Your task to perform on an android device: What's the weather going to be tomorrow? Image 0: 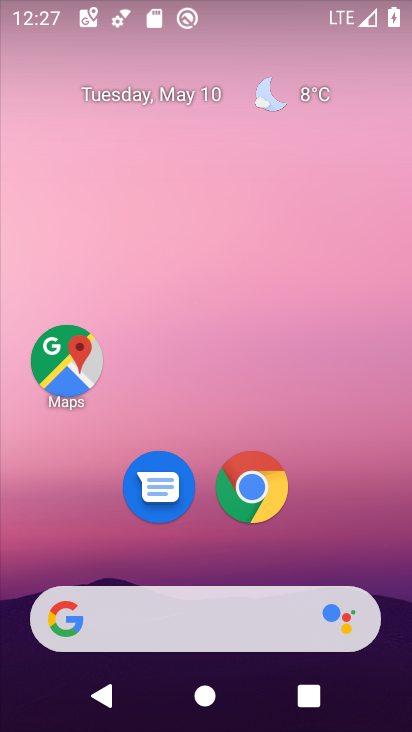
Step 0: press home button
Your task to perform on an android device: What's the weather going to be tomorrow? Image 1: 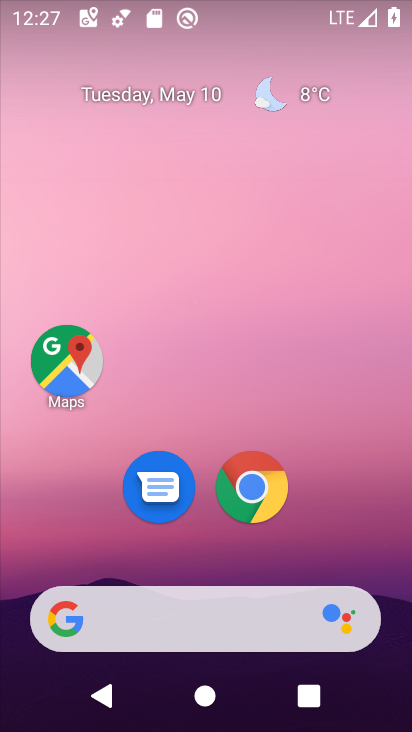
Step 1: click (322, 92)
Your task to perform on an android device: What's the weather going to be tomorrow? Image 2: 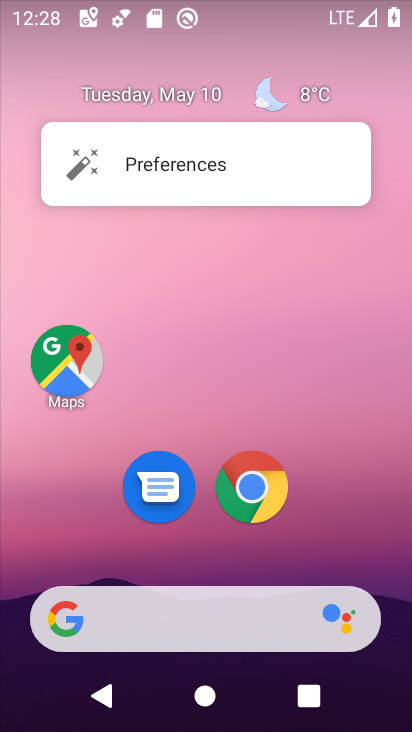
Step 2: click (308, 86)
Your task to perform on an android device: What's the weather going to be tomorrow? Image 3: 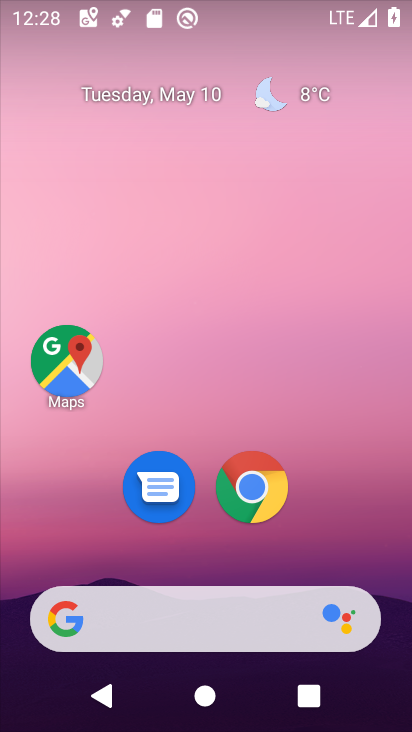
Step 3: click (315, 88)
Your task to perform on an android device: What's the weather going to be tomorrow? Image 4: 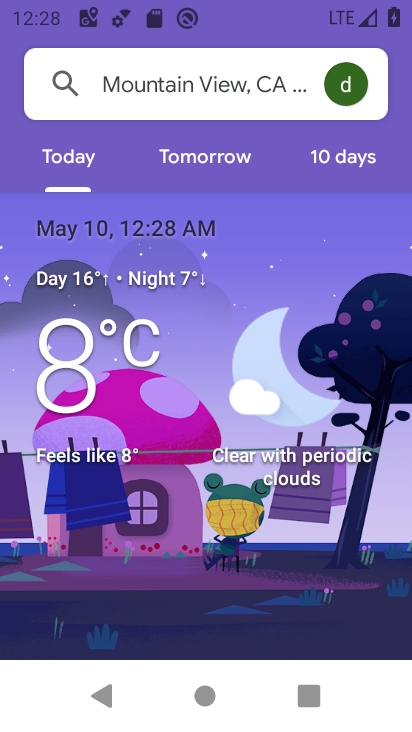
Step 4: click (206, 170)
Your task to perform on an android device: What's the weather going to be tomorrow? Image 5: 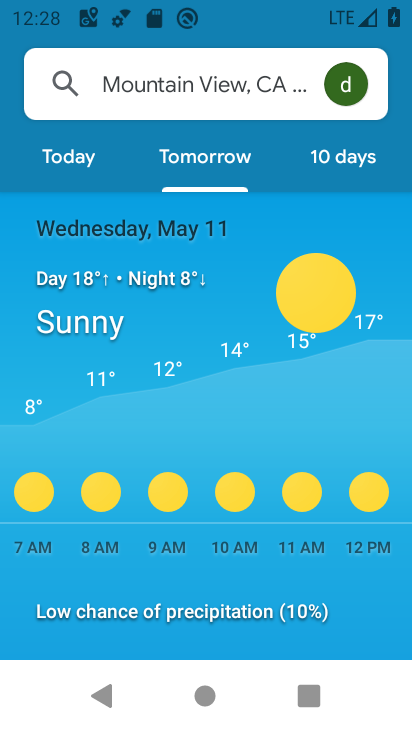
Step 5: drag from (335, 507) to (55, 481)
Your task to perform on an android device: What's the weather going to be tomorrow? Image 6: 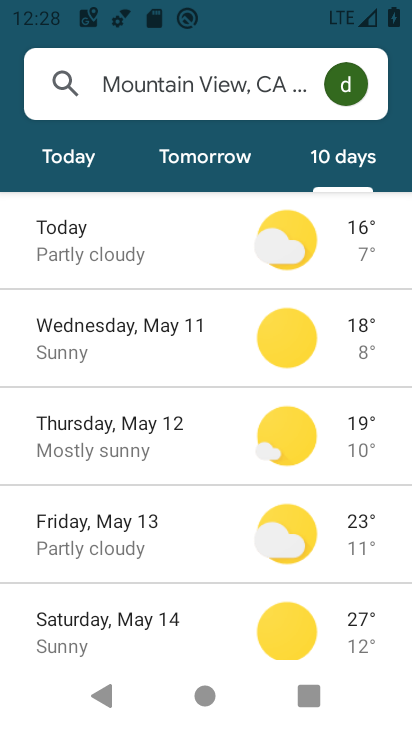
Step 6: click (224, 153)
Your task to perform on an android device: What's the weather going to be tomorrow? Image 7: 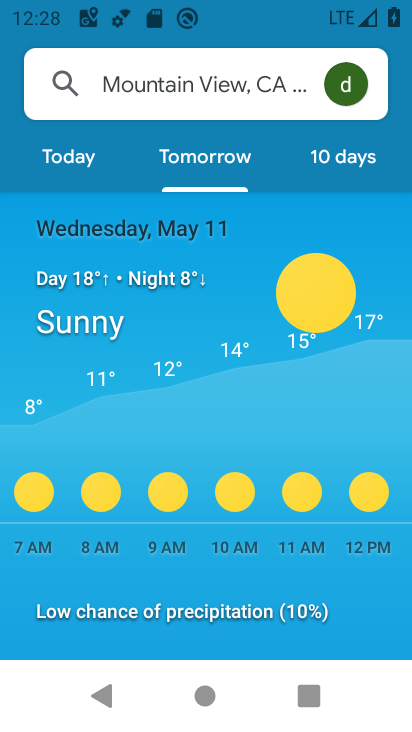
Step 7: task complete